Your task to perform on an android device: turn on data saver in the chrome app Image 0: 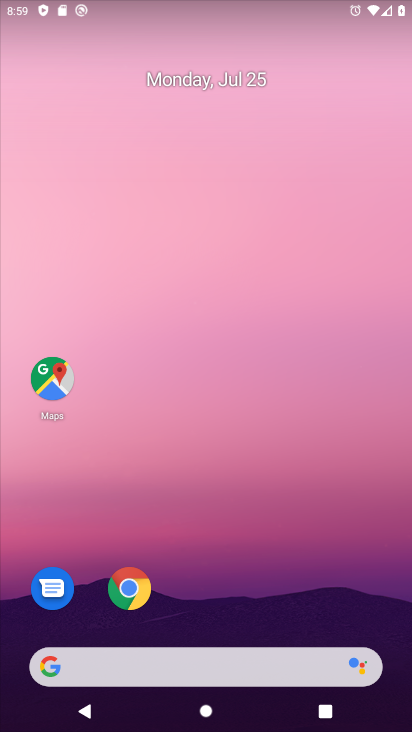
Step 0: click (142, 587)
Your task to perform on an android device: turn on data saver in the chrome app Image 1: 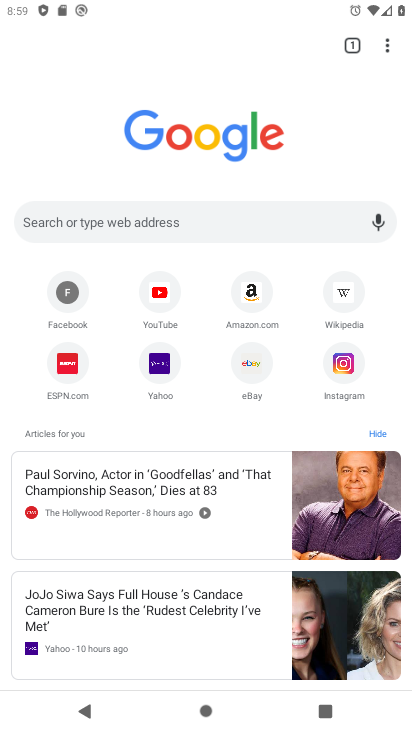
Step 1: drag from (389, 39) to (269, 358)
Your task to perform on an android device: turn on data saver in the chrome app Image 2: 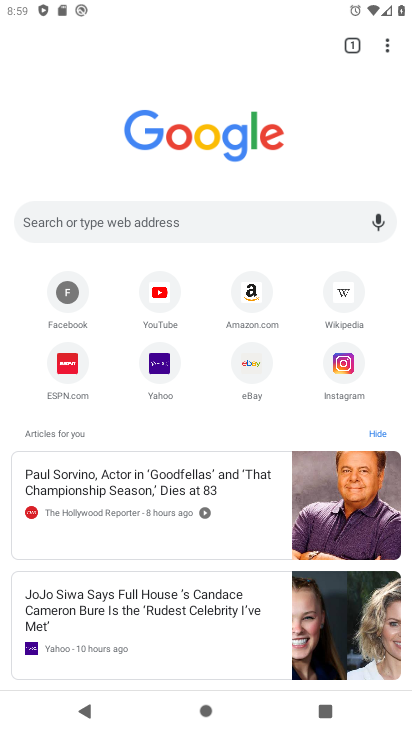
Step 2: drag from (389, 45) to (217, 382)
Your task to perform on an android device: turn on data saver in the chrome app Image 3: 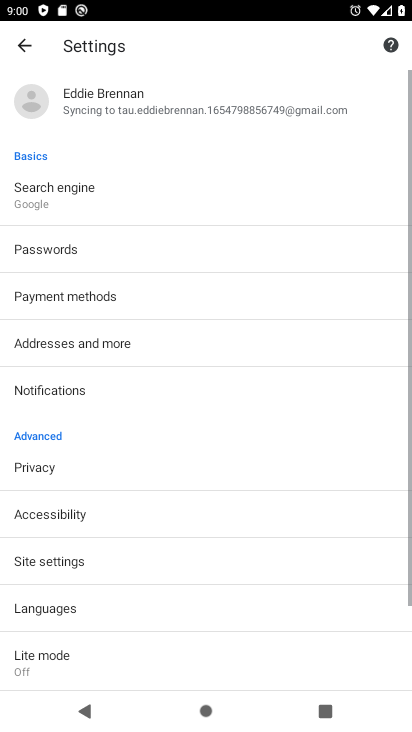
Step 3: drag from (140, 556) to (160, 272)
Your task to perform on an android device: turn on data saver in the chrome app Image 4: 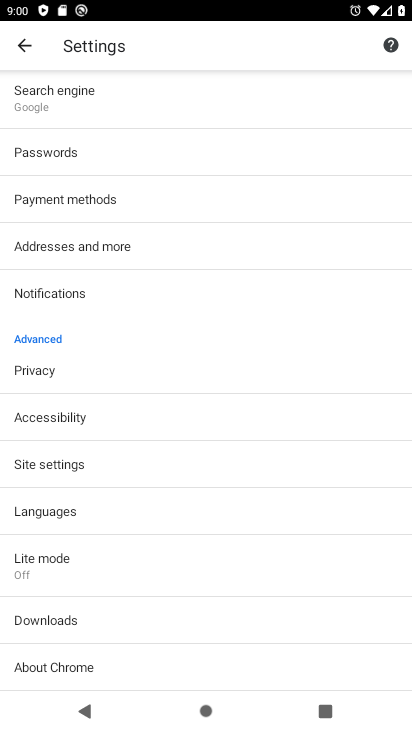
Step 4: click (41, 564)
Your task to perform on an android device: turn on data saver in the chrome app Image 5: 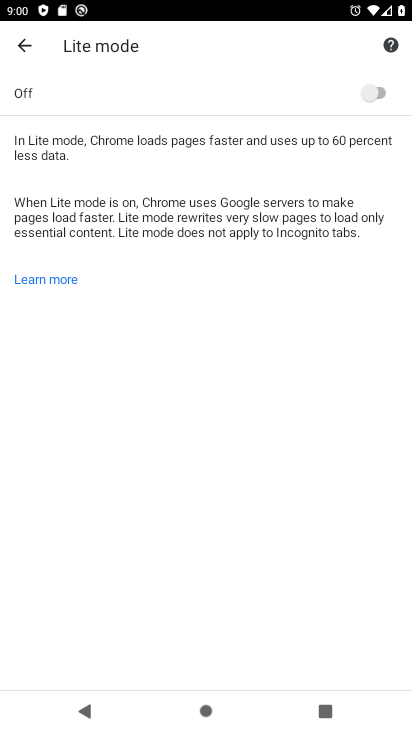
Step 5: task complete